Your task to perform on an android device: change notification settings in the gmail app Image 0: 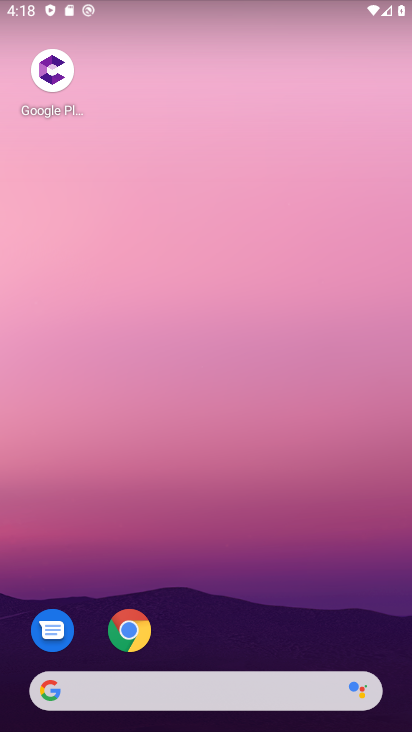
Step 0: drag from (263, 620) to (316, 220)
Your task to perform on an android device: change notification settings in the gmail app Image 1: 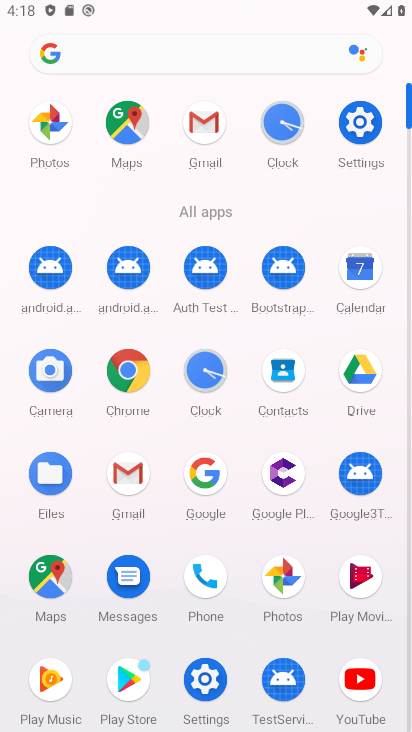
Step 1: click (197, 129)
Your task to perform on an android device: change notification settings in the gmail app Image 2: 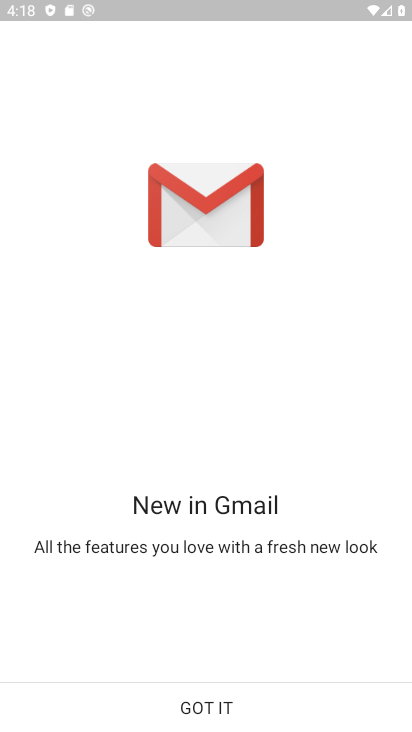
Step 2: click (210, 121)
Your task to perform on an android device: change notification settings in the gmail app Image 3: 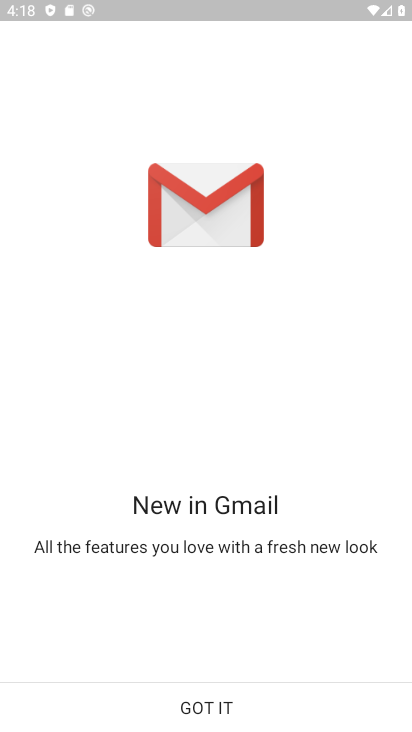
Step 3: click (216, 719)
Your task to perform on an android device: change notification settings in the gmail app Image 4: 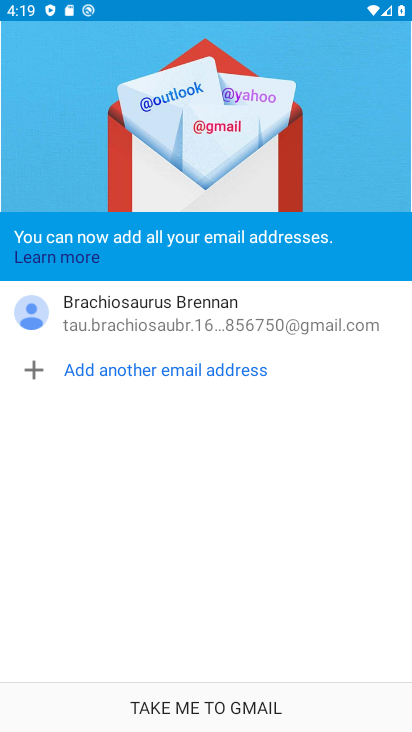
Step 4: click (275, 705)
Your task to perform on an android device: change notification settings in the gmail app Image 5: 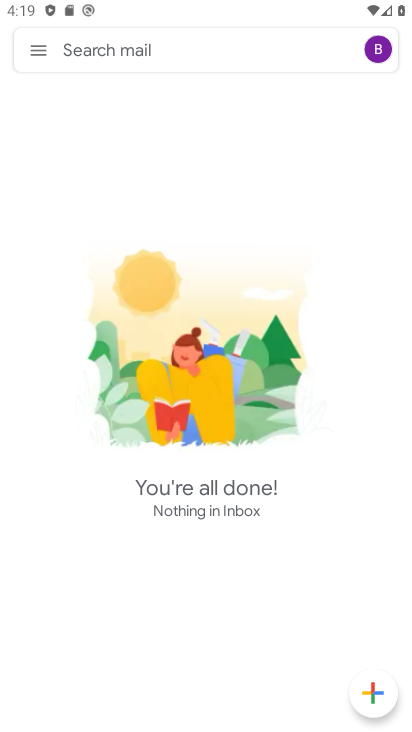
Step 5: click (37, 54)
Your task to perform on an android device: change notification settings in the gmail app Image 6: 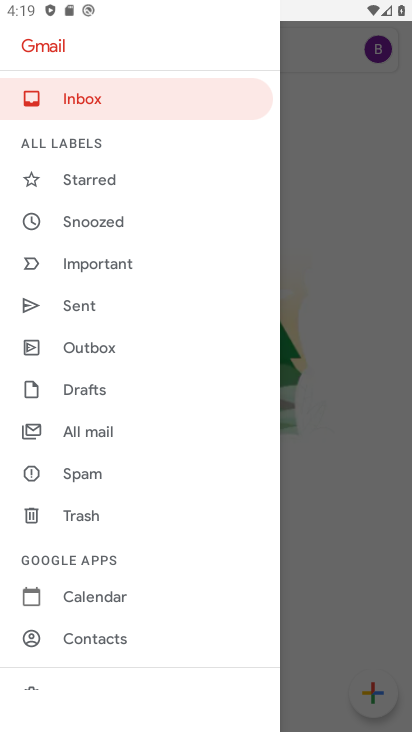
Step 6: drag from (116, 478) to (133, 333)
Your task to perform on an android device: change notification settings in the gmail app Image 7: 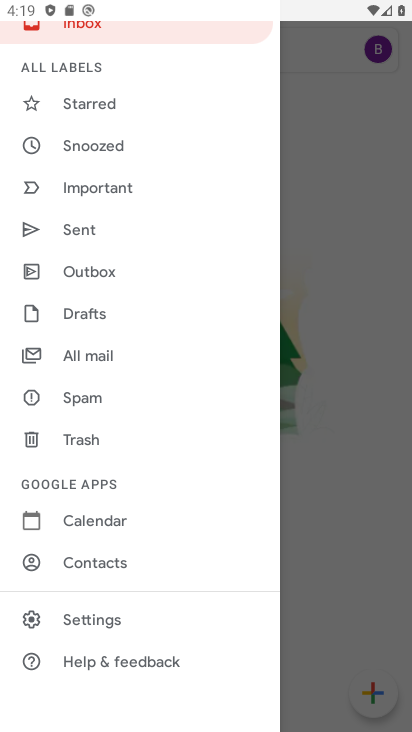
Step 7: click (93, 619)
Your task to perform on an android device: change notification settings in the gmail app Image 8: 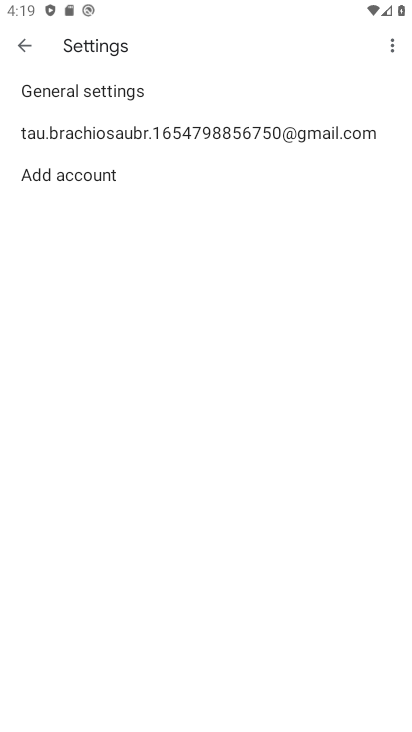
Step 8: click (140, 97)
Your task to perform on an android device: change notification settings in the gmail app Image 9: 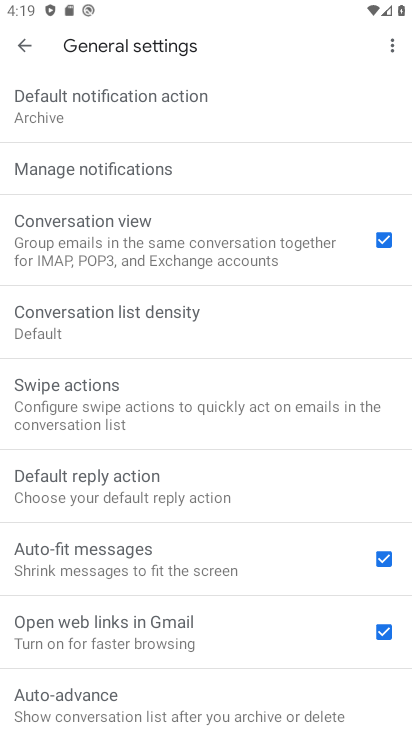
Step 9: click (128, 166)
Your task to perform on an android device: change notification settings in the gmail app Image 10: 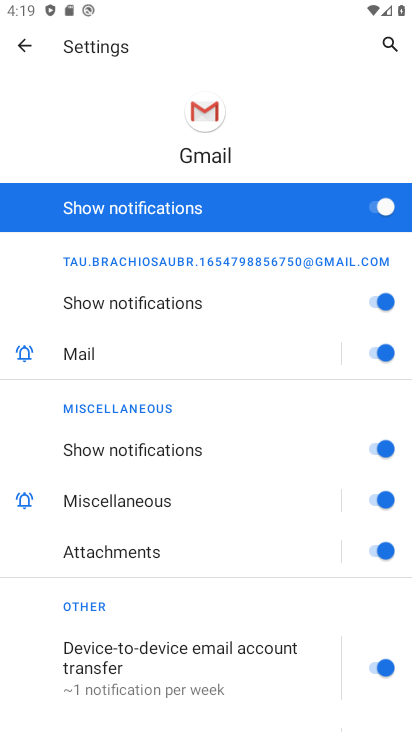
Step 10: click (309, 214)
Your task to perform on an android device: change notification settings in the gmail app Image 11: 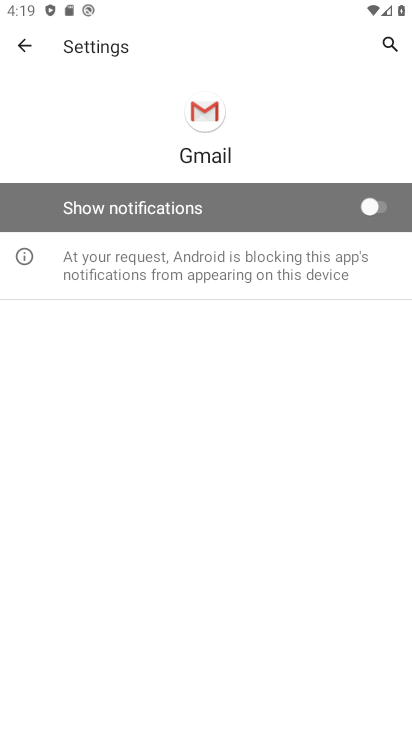
Step 11: task complete